Your task to perform on an android device: When is my next meeting? Image 0: 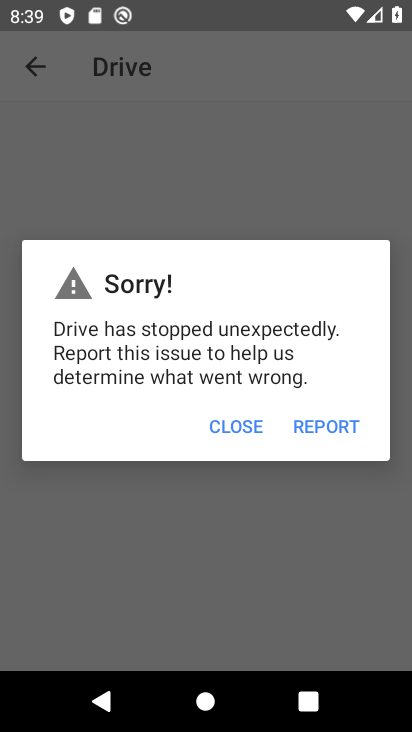
Step 0: press home button
Your task to perform on an android device: When is my next meeting? Image 1: 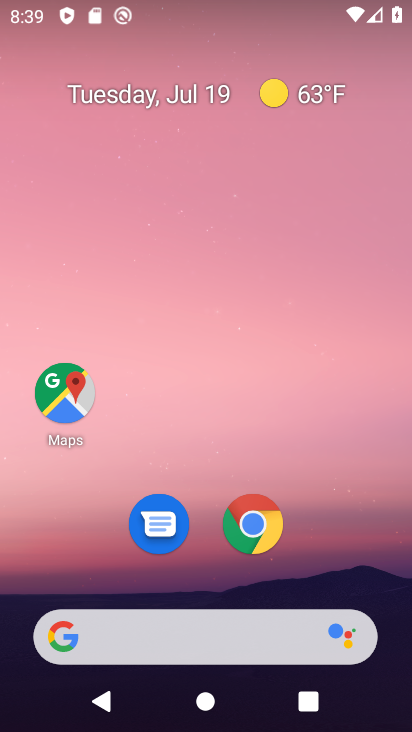
Step 1: drag from (177, 640) to (337, 178)
Your task to perform on an android device: When is my next meeting? Image 2: 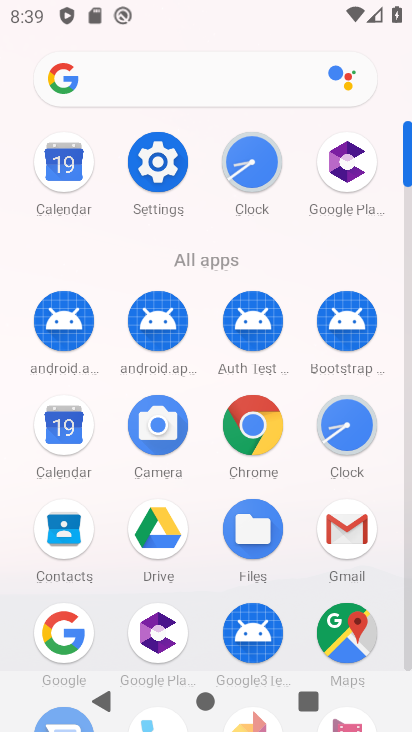
Step 2: click (65, 170)
Your task to perform on an android device: When is my next meeting? Image 3: 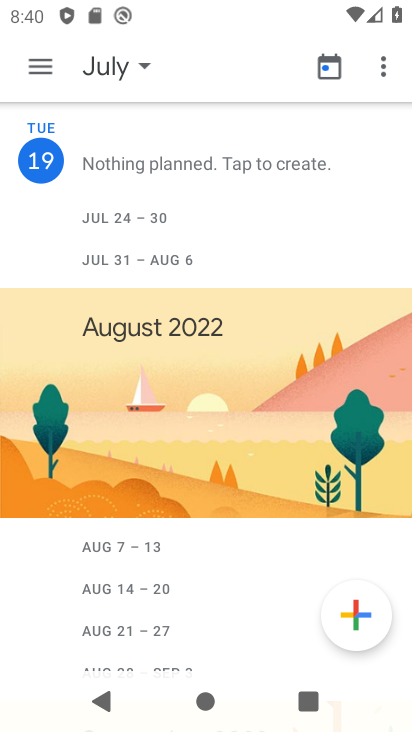
Step 3: click (123, 72)
Your task to perform on an android device: When is my next meeting? Image 4: 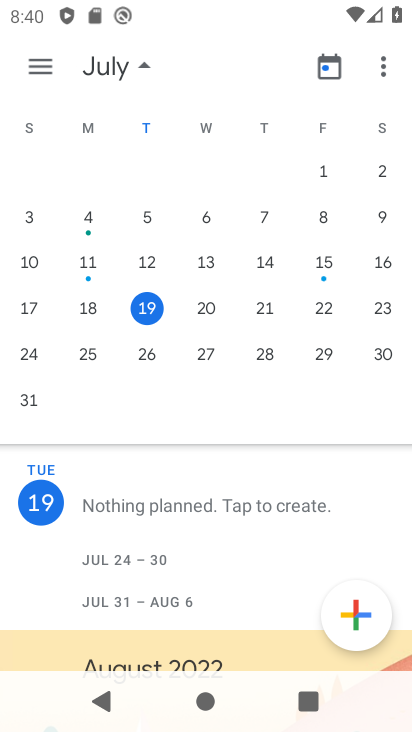
Step 4: click (42, 66)
Your task to perform on an android device: When is my next meeting? Image 5: 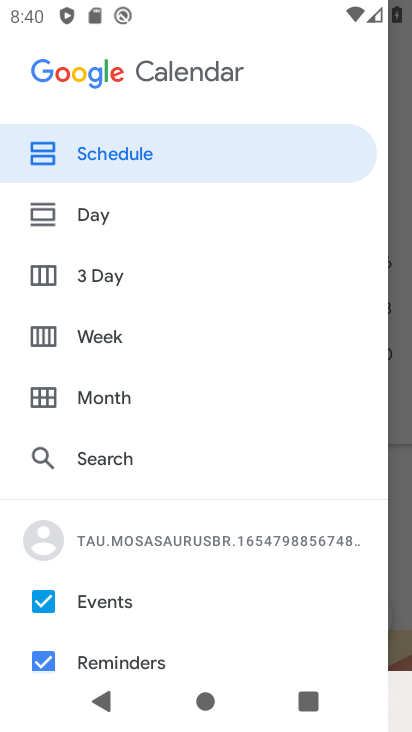
Step 5: click (142, 166)
Your task to perform on an android device: When is my next meeting? Image 6: 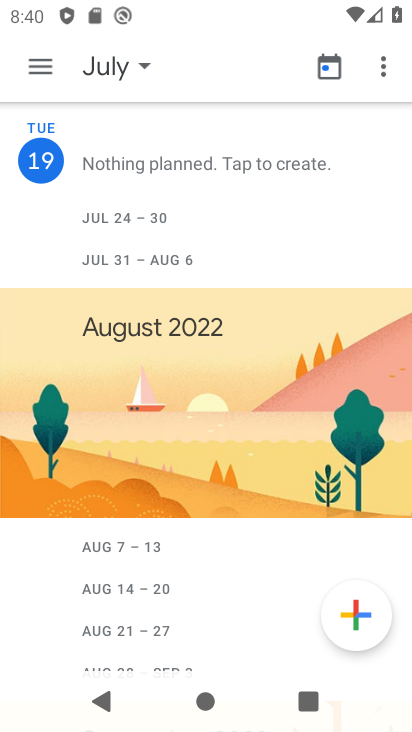
Step 6: task complete